Your task to perform on an android device: open app "Airtel Thanks" Image 0: 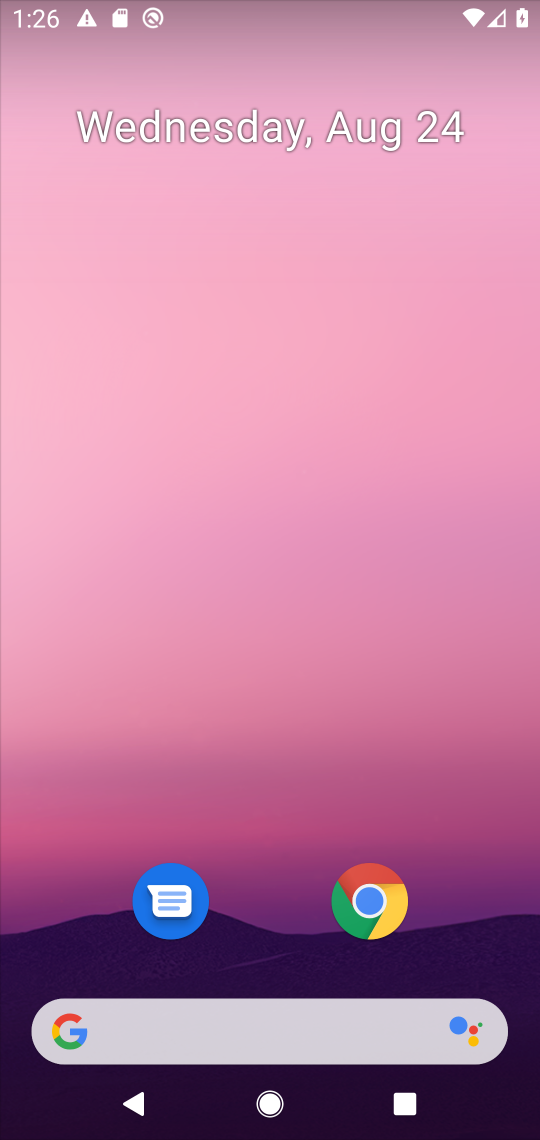
Step 0: drag from (254, 828) to (347, 35)
Your task to perform on an android device: open app "Airtel Thanks" Image 1: 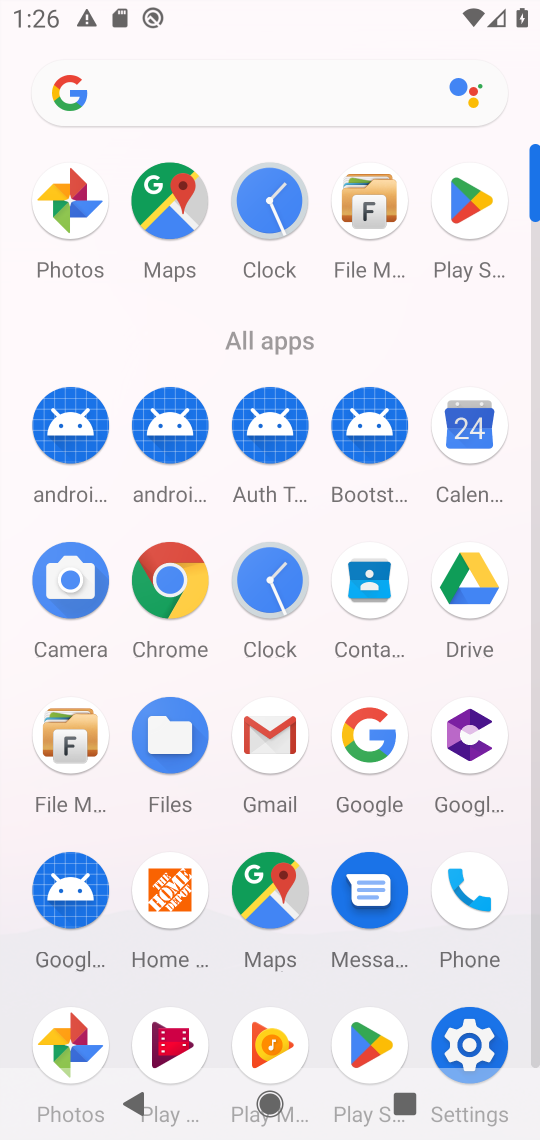
Step 1: click (467, 195)
Your task to perform on an android device: open app "Airtel Thanks" Image 2: 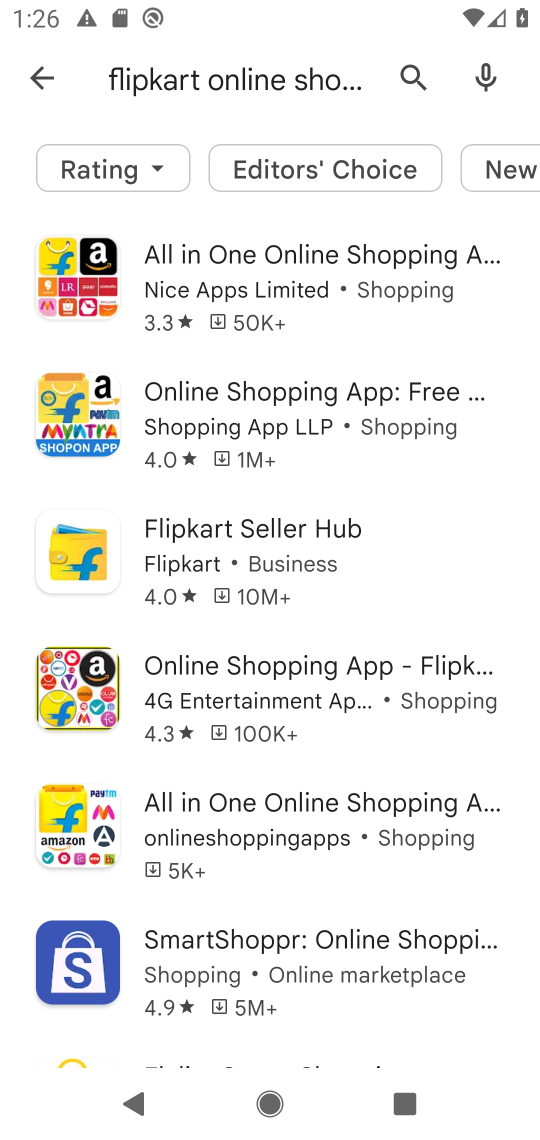
Step 2: click (385, 66)
Your task to perform on an android device: open app "Airtel Thanks" Image 3: 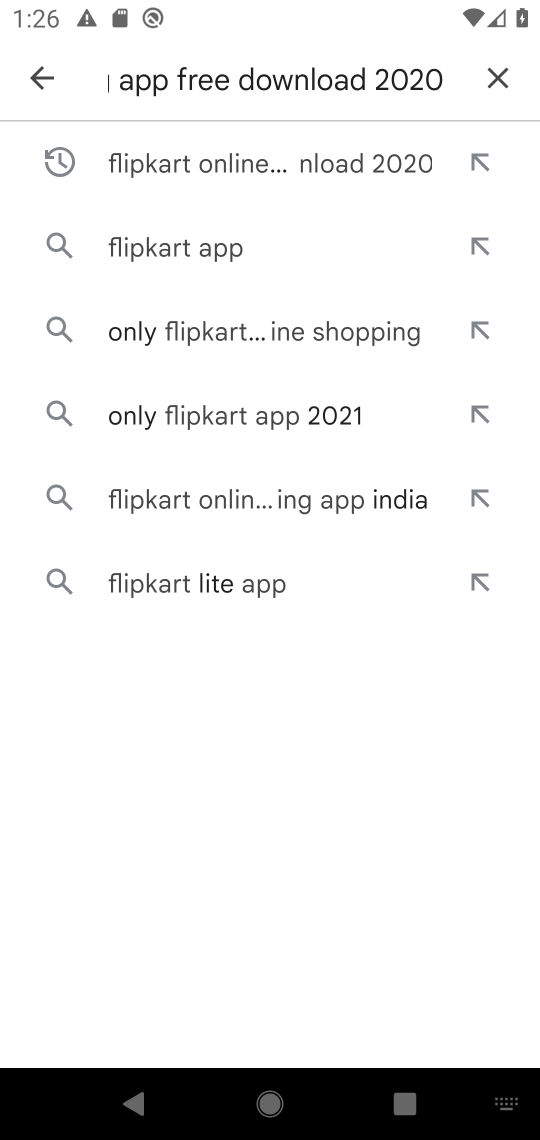
Step 3: click (488, 73)
Your task to perform on an android device: open app "Airtel Thanks" Image 4: 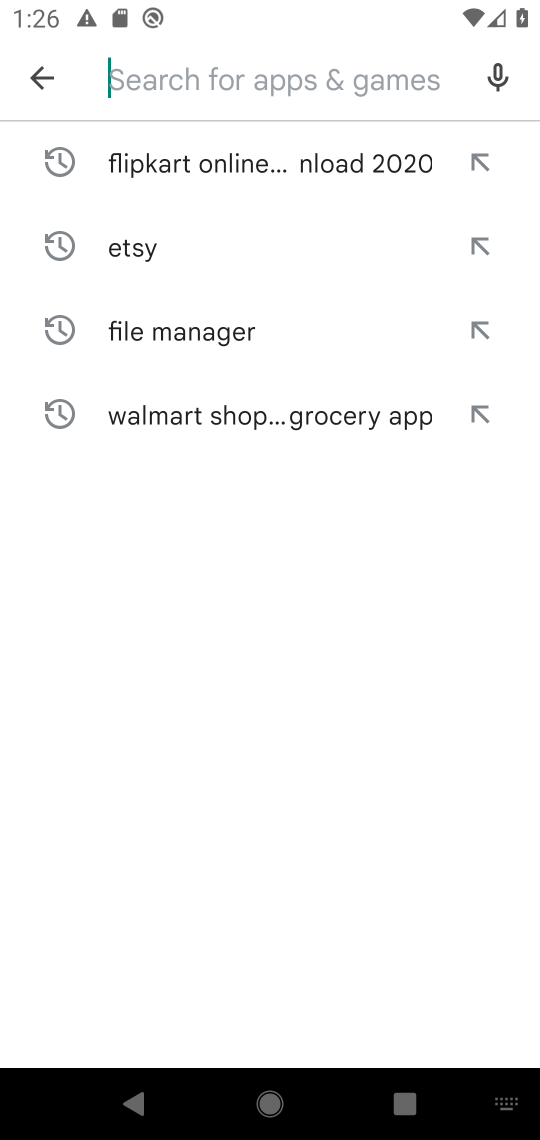
Step 4: click (165, 73)
Your task to perform on an android device: open app "Airtel Thanks" Image 5: 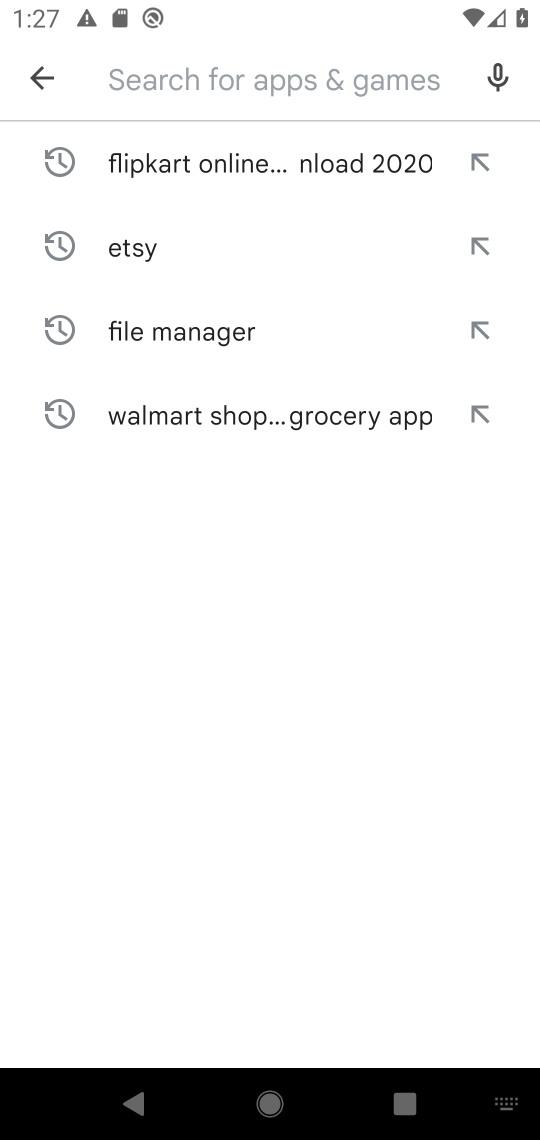
Step 5: click (215, 81)
Your task to perform on an android device: open app "Airtel Thanks" Image 6: 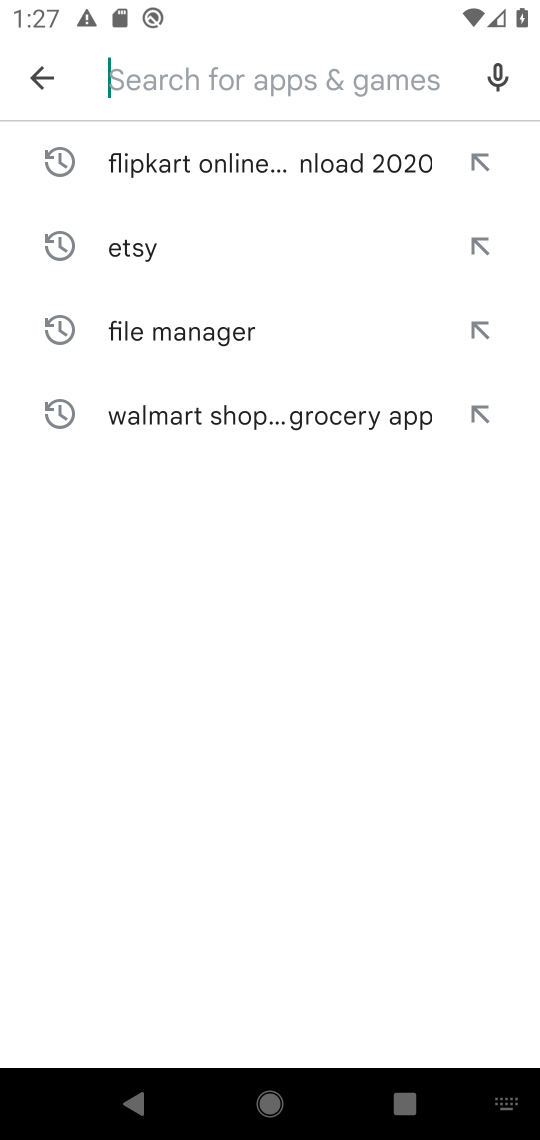
Step 6: type "Airtel Thanks"
Your task to perform on an android device: open app "Airtel Thanks" Image 7: 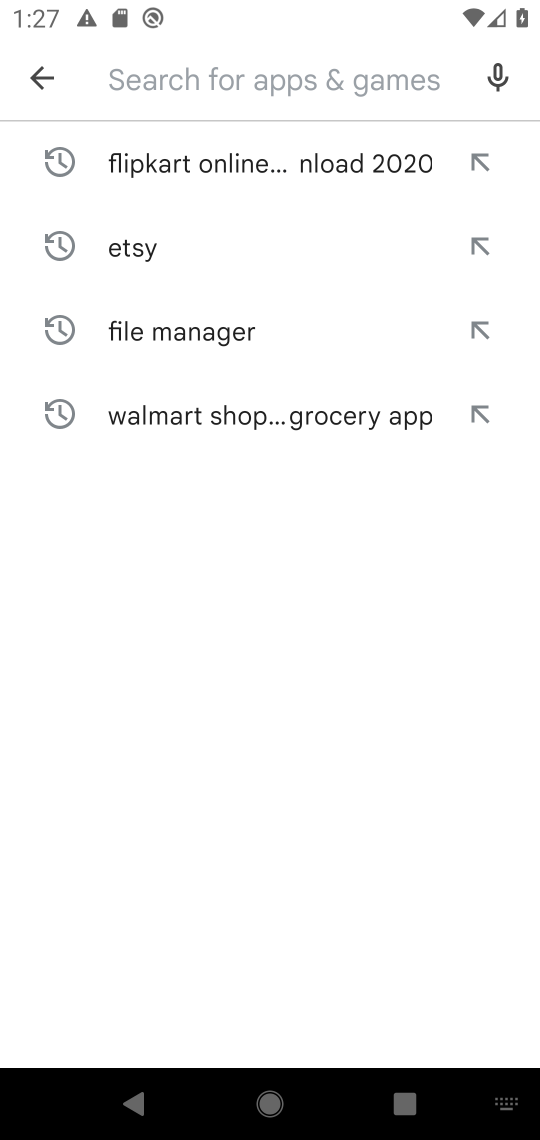
Step 7: click (183, 700)
Your task to perform on an android device: open app "Airtel Thanks" Image 8: 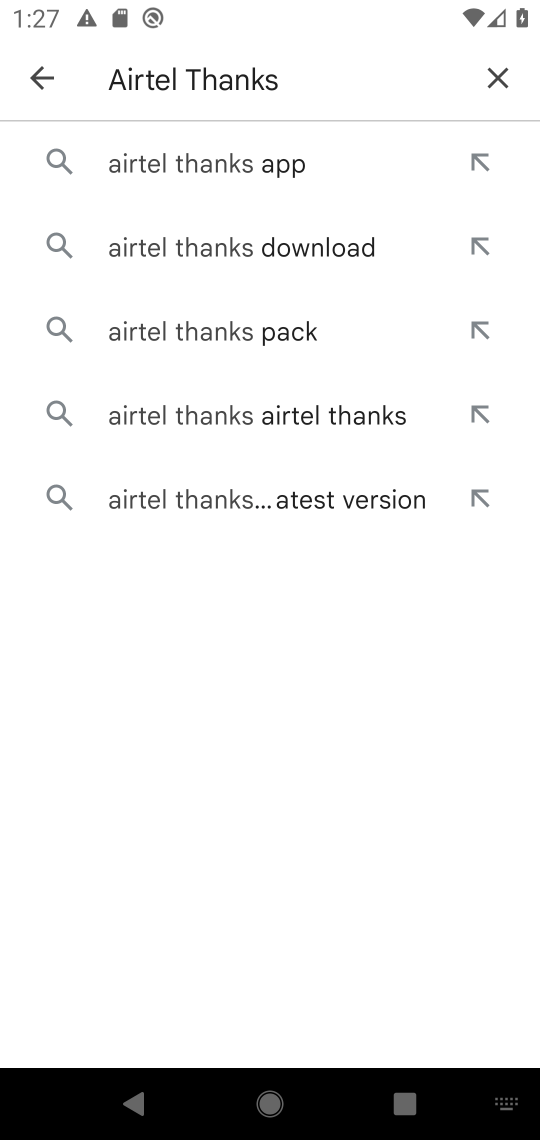
Step 8: click (220, 166)
Your task to perform on an android device: open app "Airtel Thanks" Image 9: 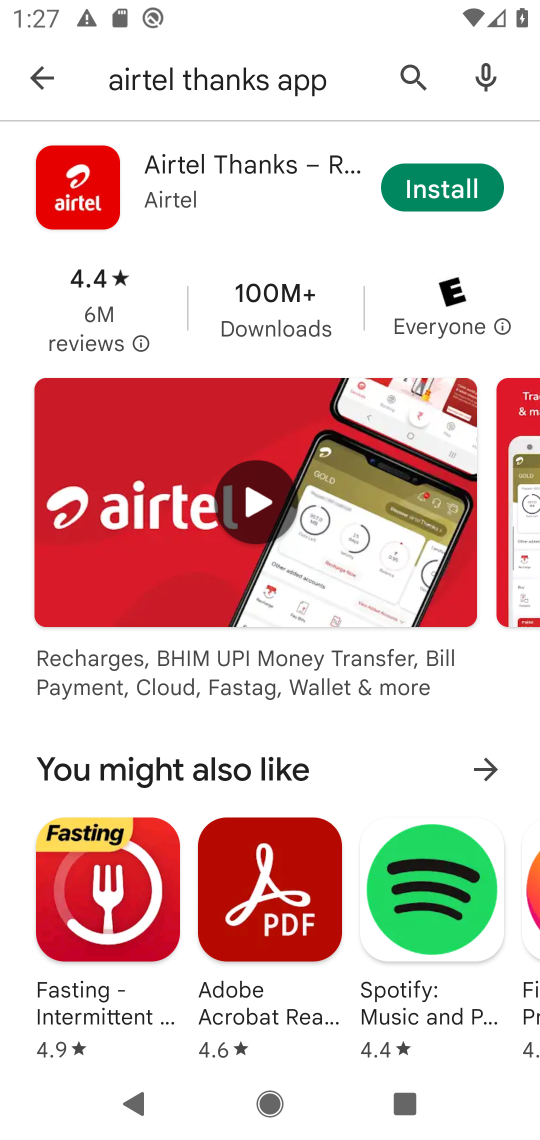
Step 9: task complete